Your task to perform on an android device: snooze an email in the gmail app Image 0: 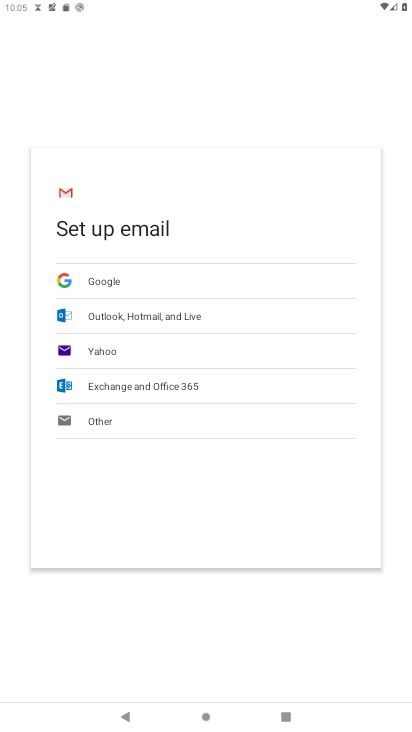
Step 0: press home button
Your task to perform on an android device: snooze an email in the gmail app Image 1: 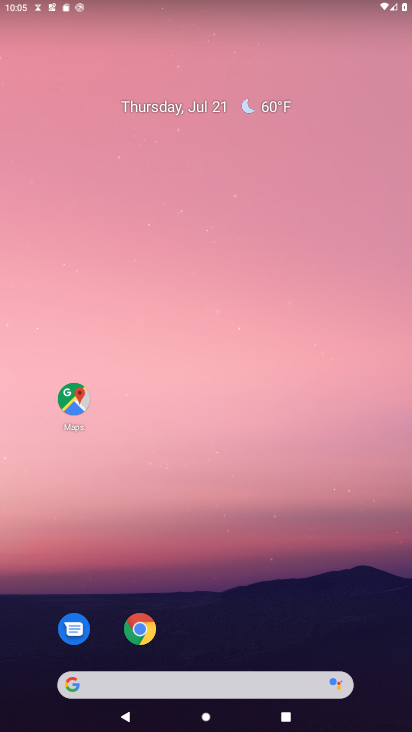
Step 1: drag from (235, 621) to (234, 138)
Your task to perform on an android device: snooze an email in the gmail app Image 2: 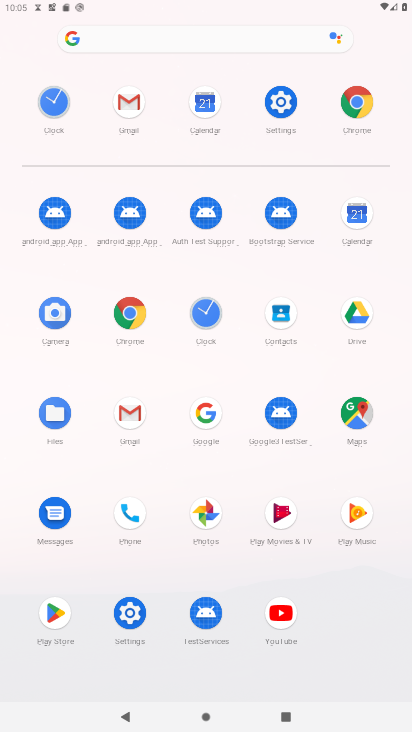
Step 2: click (119, 97)
Your task to perform on an android device: snooze an email in the gmail app Image 3: 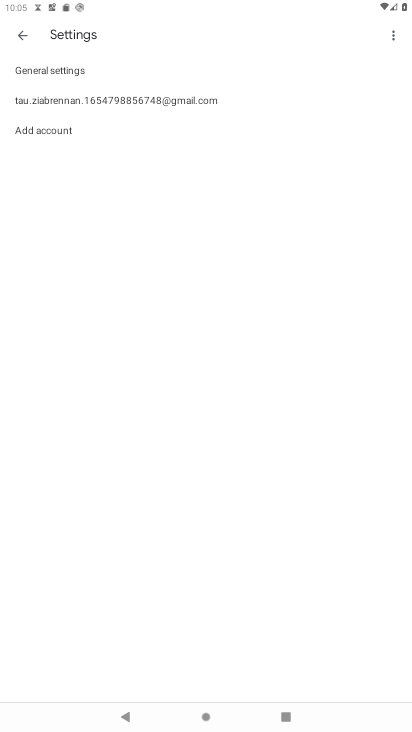
Step 3: click (21, 43)
Your task to perform on an android device: snooze an email in the gmail app Image 4: 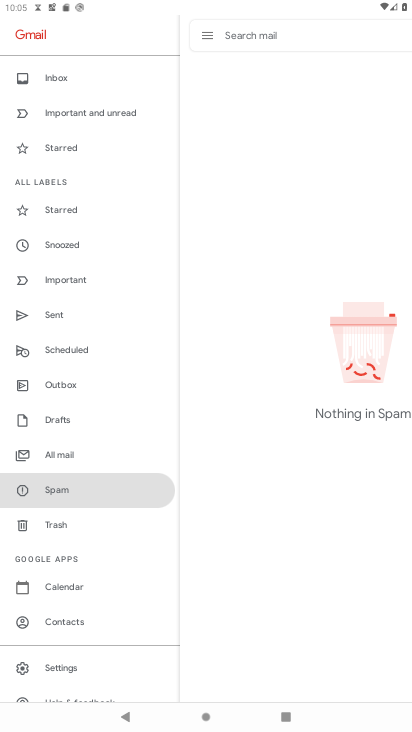
Step 4: click (63, 241)
Your task to perform on an android device: snooze an email in the gmail app Image 5: 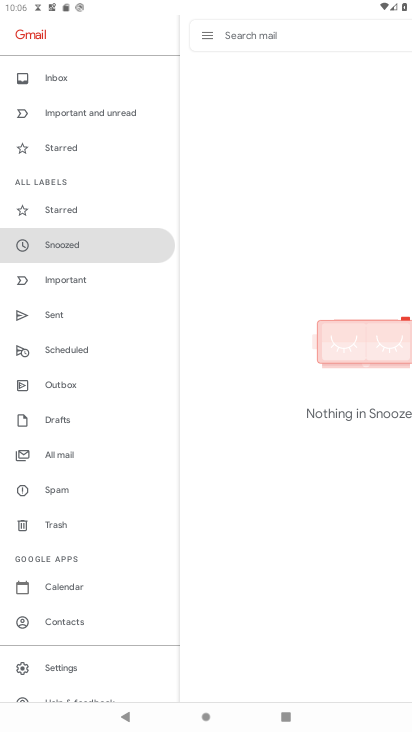
Step 5: task complete